Your task to perform on an android device: What's the weather today? Image 0: 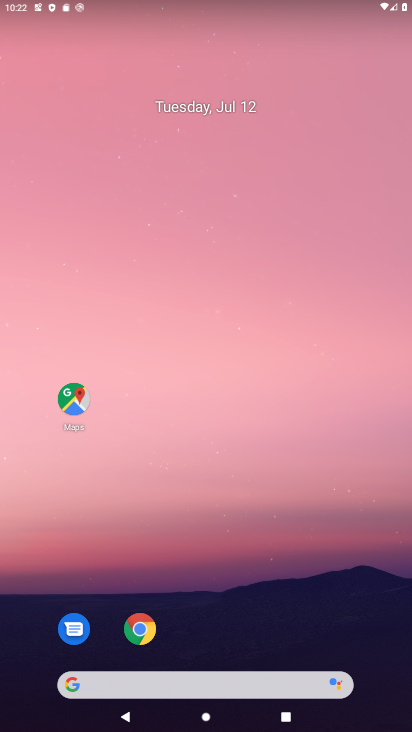
Step 0: drag from (309, 608) to (334, 186)
Your task to perform on an android device: What's the weather today? Image 1: 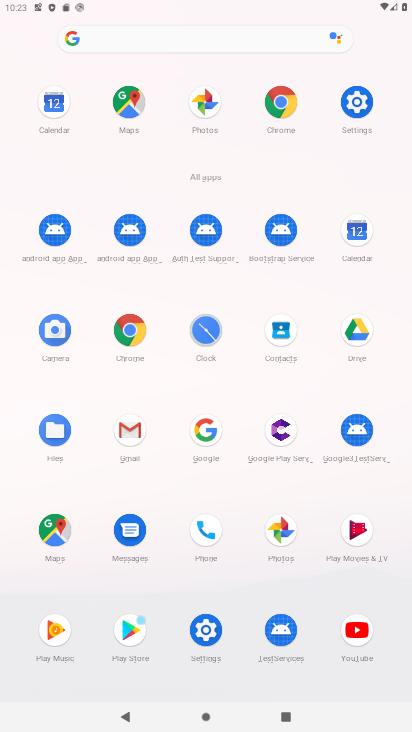
Step 1: drag from (326, 66) to (312, 534)
Your task to perform on an android device: What's the weather today? Image 2: 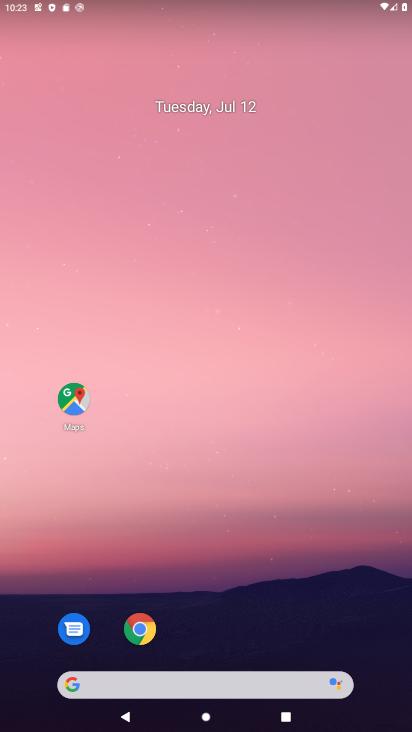
Step 2: click (232, 692)
Your task to perform on an android device: What's the weather today? Image 3: 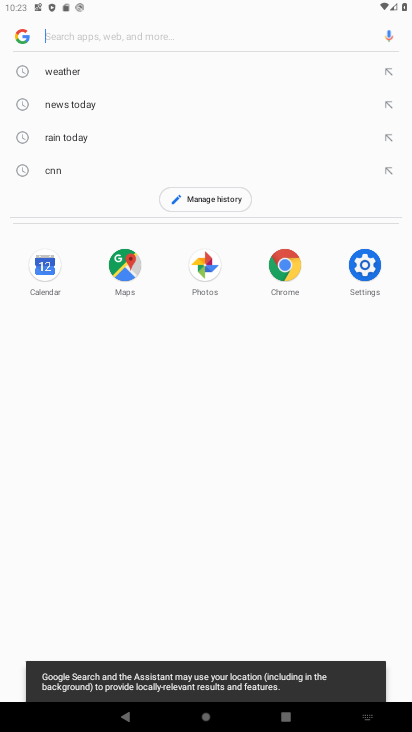
Step 3: click (176, 68)
Your task to perform on an android device: What's the weather today? Image 4: 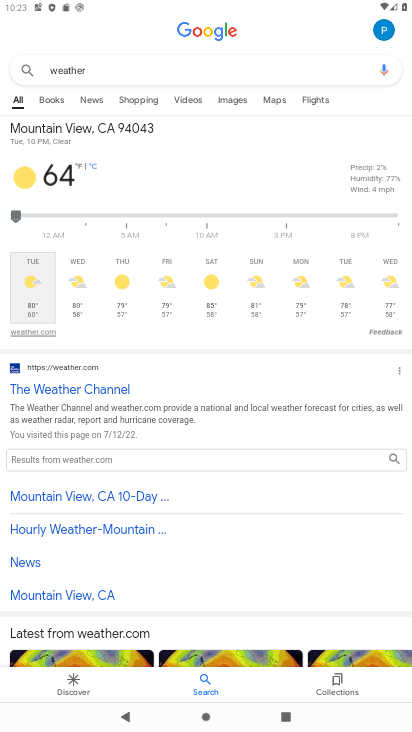
Step 4: task complete